Your task to perform on an android device: Open settings on Google Maps Image 0: 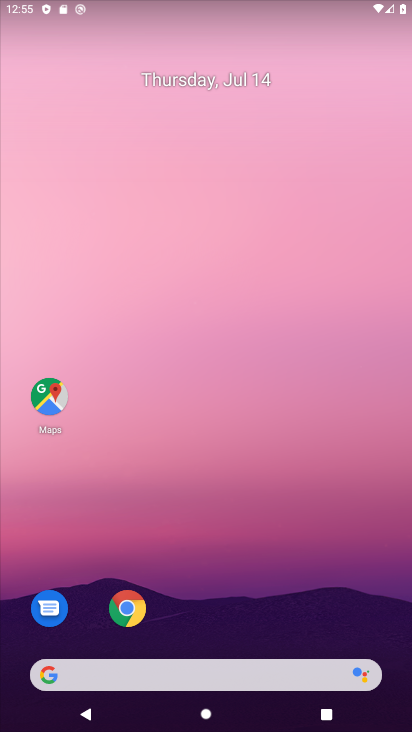
Step 0: click (36, 390)
Your task to perform on an android device: Open settings on Google Maps Image 1: 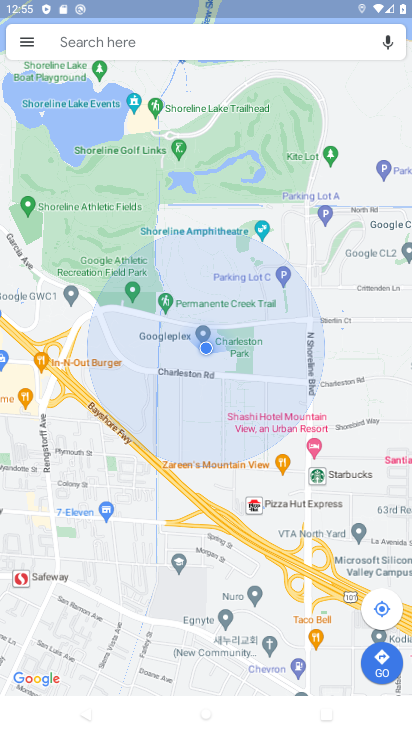
Step 1: drag from (28, 36) to (65, 217)
Your task to perform on an android device: Open settings on Google Maps Image 2: 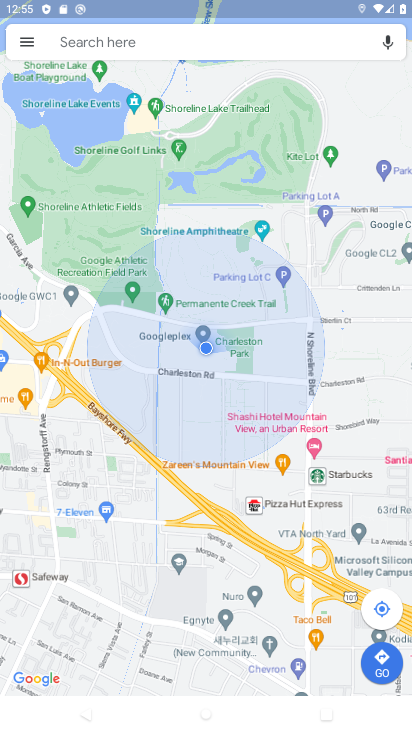
Step 2: click (17, 33)
Your task to perform on an android device: Open settings on Google Maps Image 3: 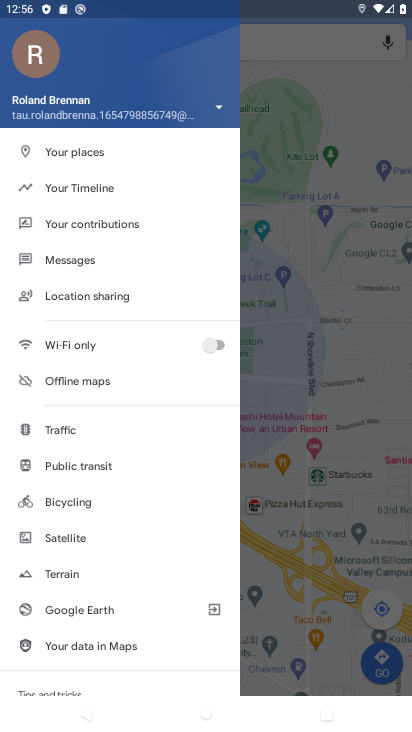
Step 3: drag from (62, 635) to (62, 127)
Your task to perform on an android device: Open settings on Google Maps Image 4: 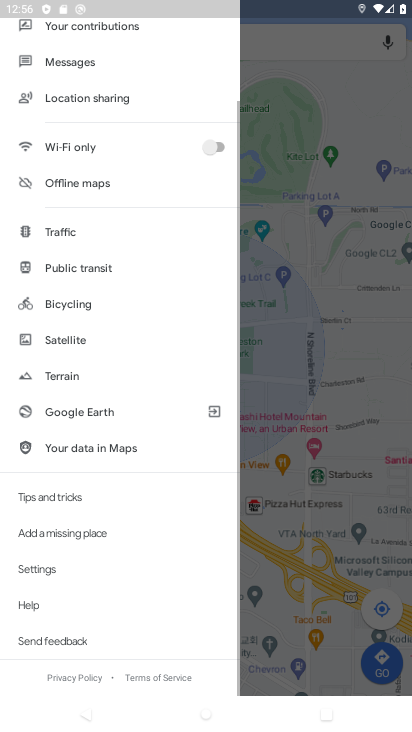
Step 4: click (32, 560)
Your task to perform on an android device: Open settings on Google Maps Image 5: 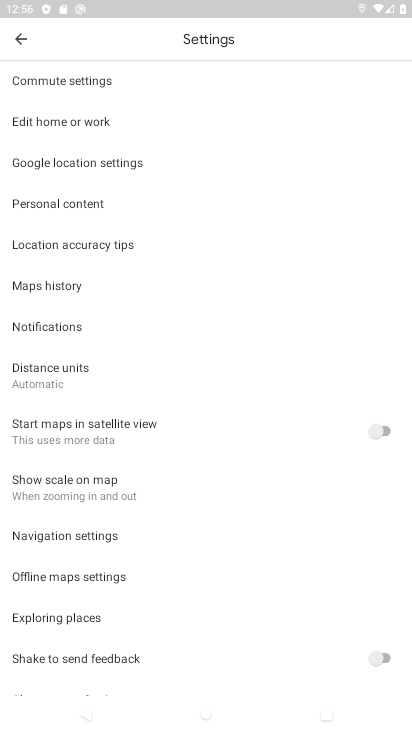
Step 5: task complete